Your task to perform on an android device: remove spam from my inbox in the gmail app Image 0: 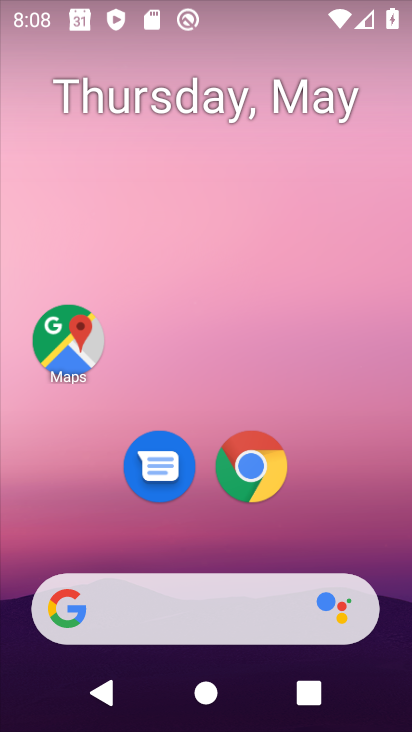
Step 0: drag from (384, 519) to (256, 131)
Your task to perform on an android device: remove spam from my inbox in the gmail app Image 1: 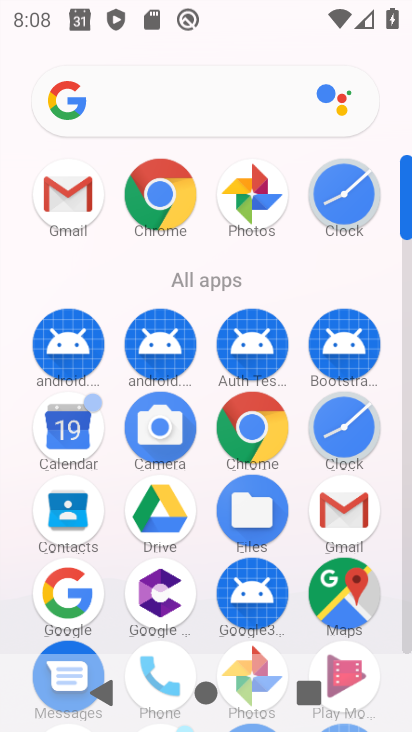
Step 1: click (342, 504)
Your task to perform on an android device: remove spam from my inbox in the gmail app Image 2: 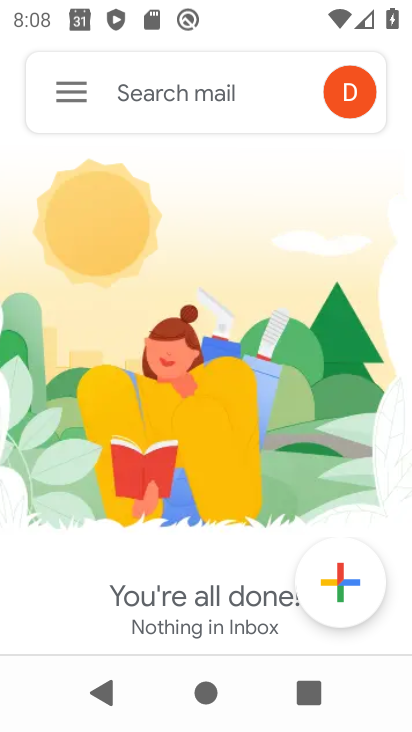
Step 2: click (73, 83)
Your task to perform on an android device: remove spam from my inbox in the gmail app Image 3: 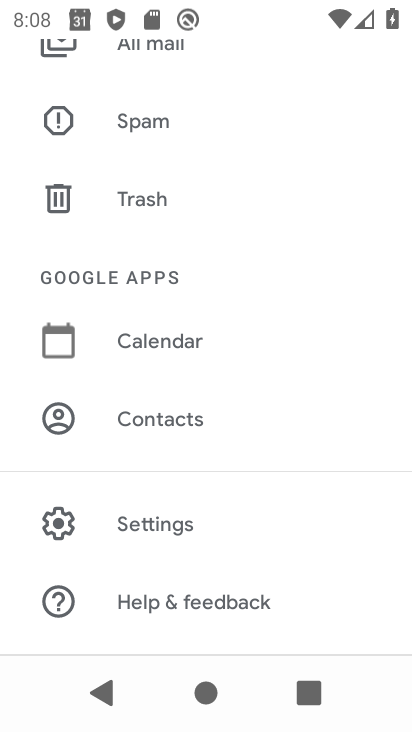
Step 3: click (167, 142)
Your task to perform on an android device: remove spam from my inbox in the gmail app Image 4: 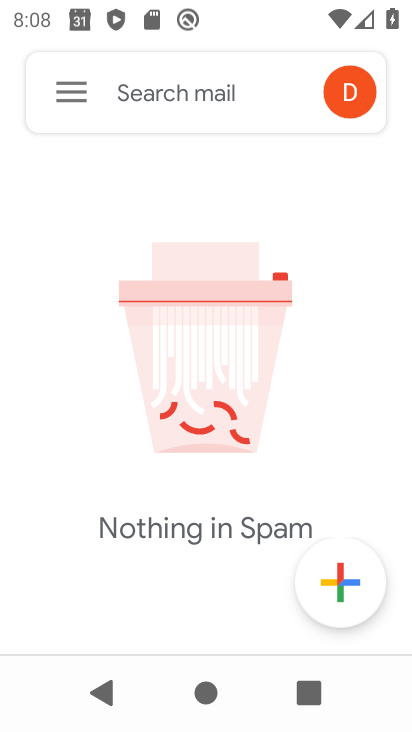
Step 4: task complete